Your task to perform on an android device: delete browsing data in the chrome app Image 0: 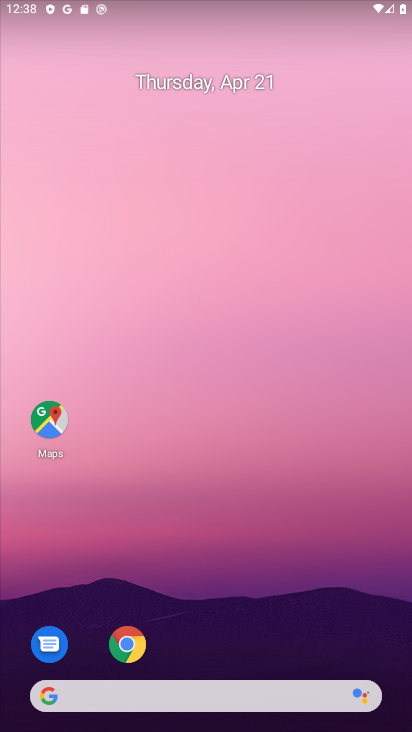
Step 0: drag from (286, 622) to (267, 78)
Your task to perform on an android device: delete browsing data in the chrome app Image 1: 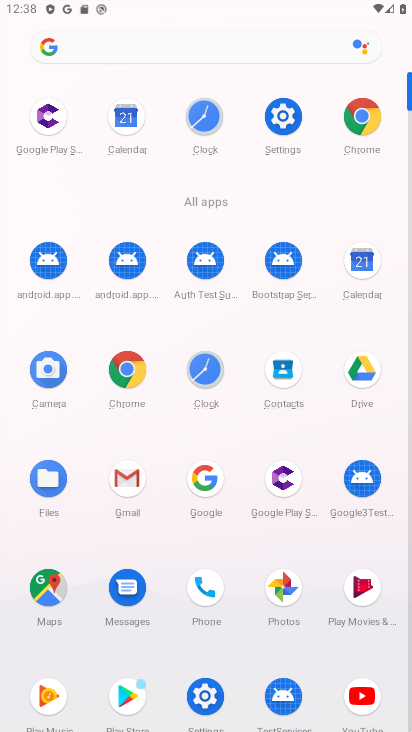
Step 1: click (373, 137)
Your task to perform on an android device: delete browsing data in the chrome app Image 2: 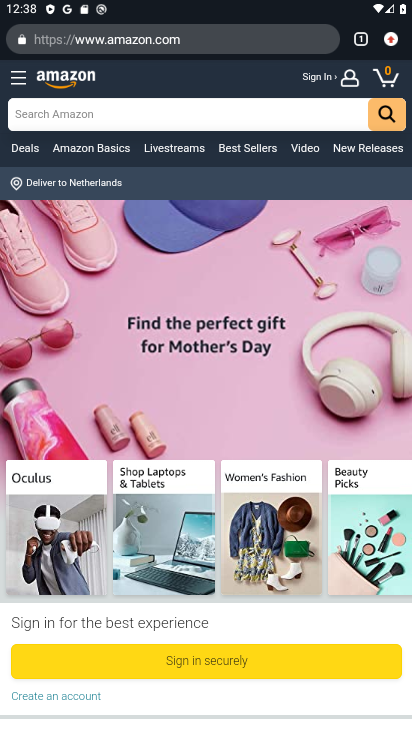
Step 2: click (391, 56)
Your task to perform on an android device: delete browsing data in the chrome app Image 3: 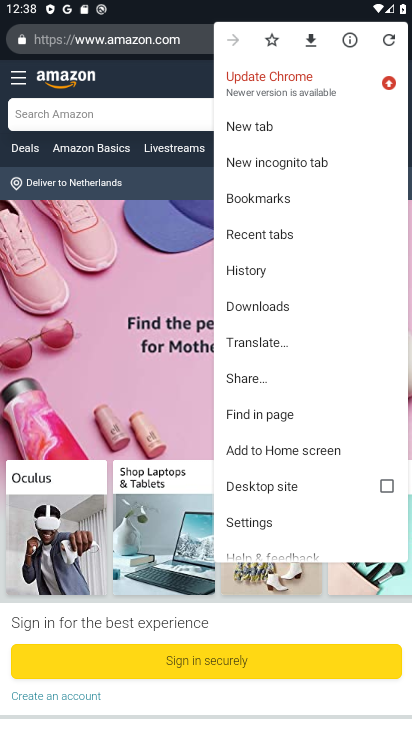
Step 3: click (300, 268)
Your task to perform on an android device: delete browsing data in the chrome app Image 4: 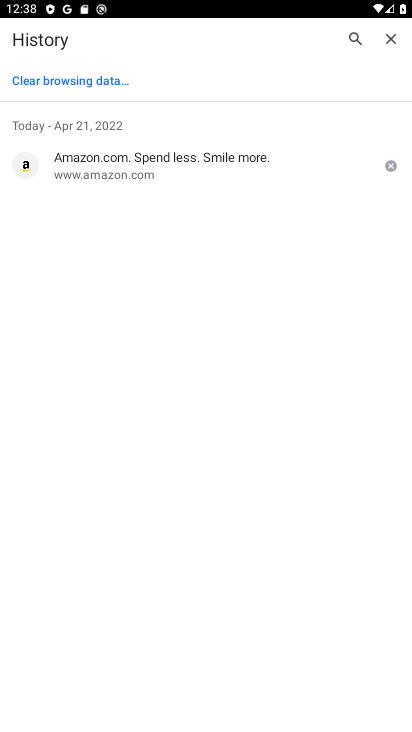
Step 4: click (92, 81)
Your task to perform on an android device: delete browsing data in the chrome app Image 5: 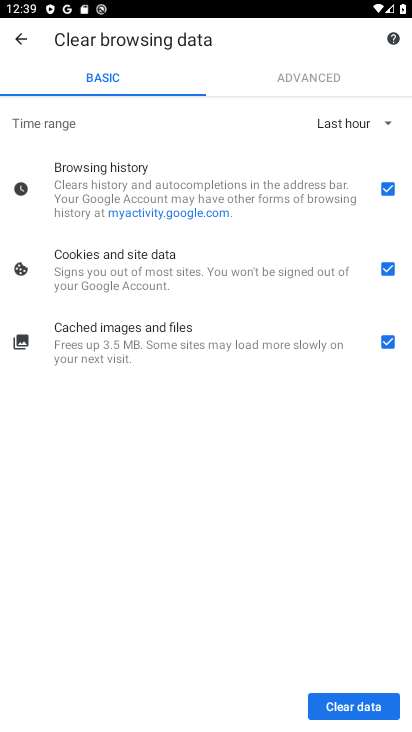
Step 5: click (374, 704)
Your task to perform on an android device: delete browsing data in the chrome app Image 6: 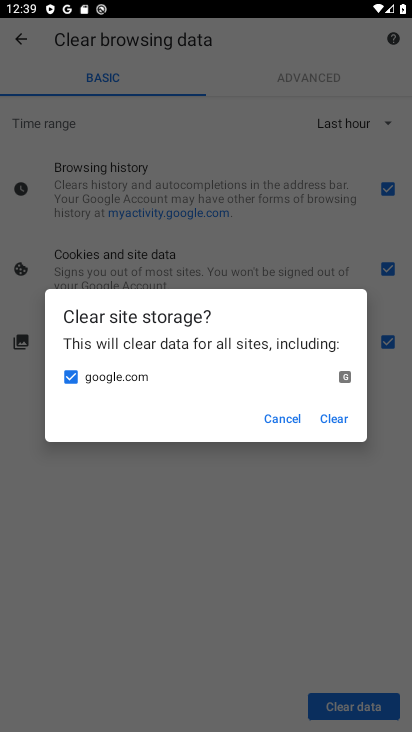
Step 6: click (334, 416)
Your task to perform on an android device: delete browsing data in the chrome app Image 7: 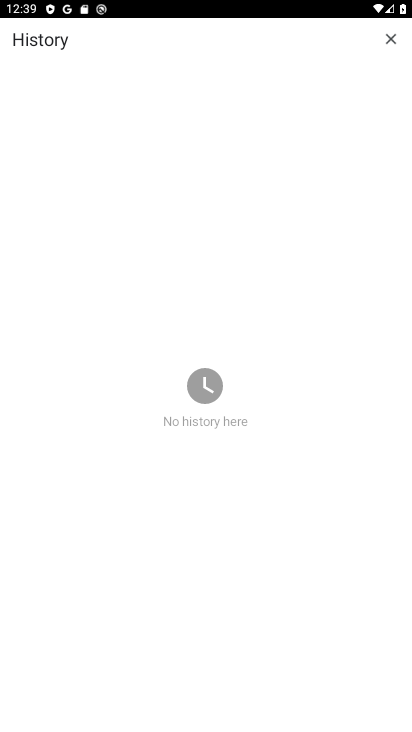
Step 7: task complete